Your task to perform on an android device: change text size in settings app Image 0: 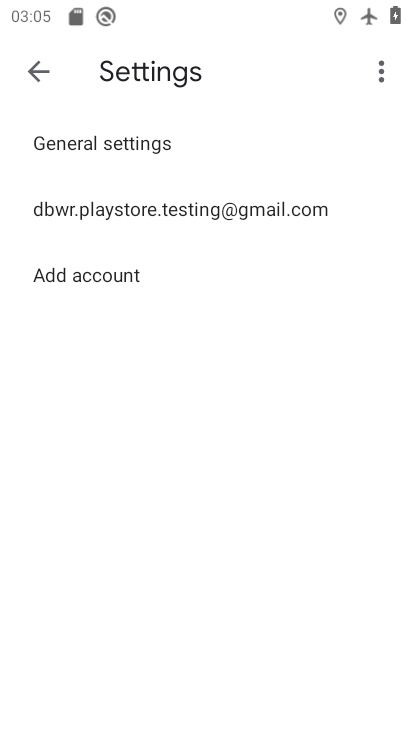
Step 0: press home button
Your task to perform on an android device: change text size in settings app Image 1: 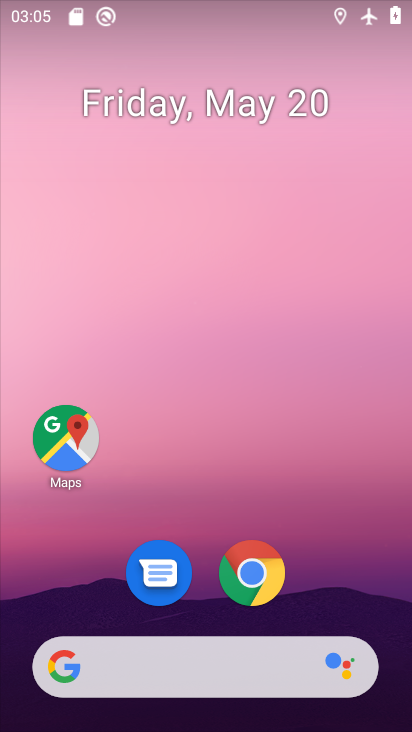
Step 1: drag from (206, 623) to (204, 216)
Your task to perform on an android device: change text size in settings app Image 2: 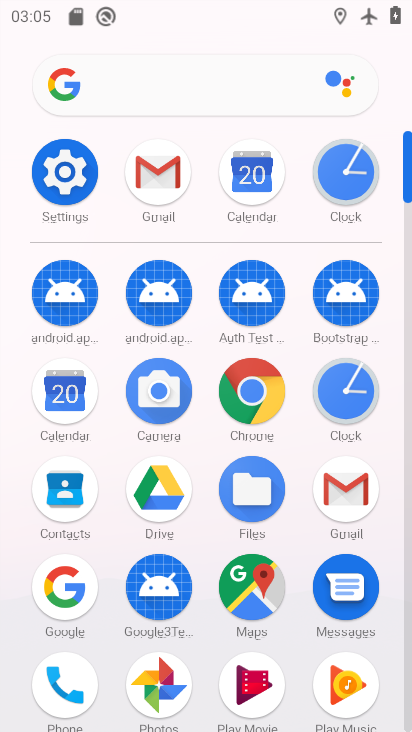
Step 2: click (90, 177)
Your task to perform on an android device: change text size in settings app Image 3: 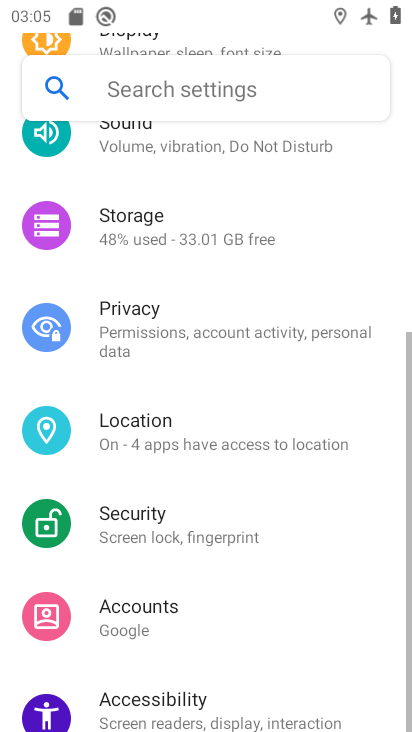
Step 3: drag from (149, 233) to (154, 510)
Your task to perform on an android device: change text size in settings app Image 4: 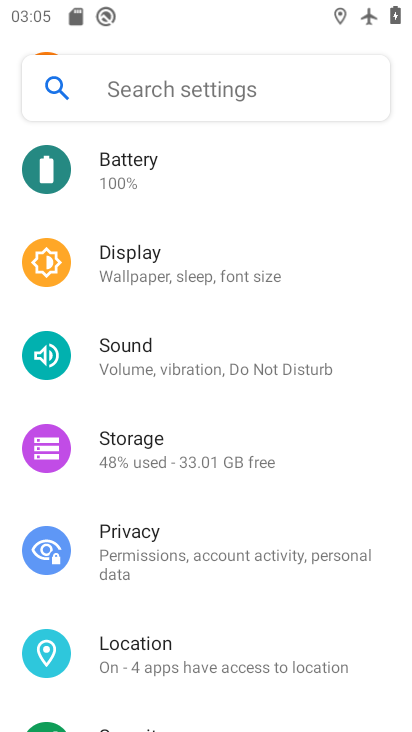
Step 4: click (170, 282)
Your task to perform on an android device: change text size in settings app Image 5: 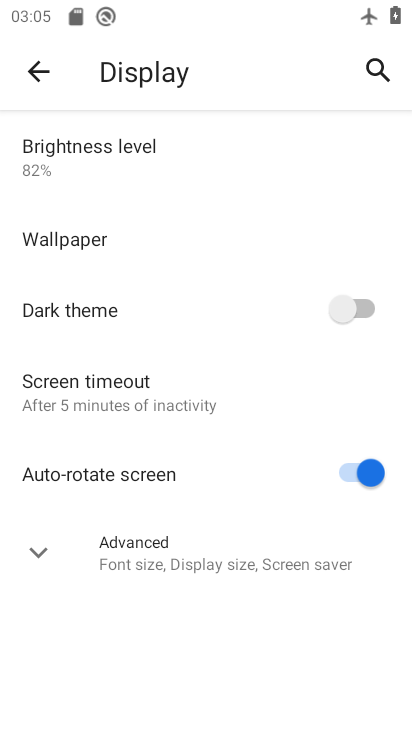
Step 5: click (148, 550)
Your task to perform on an android device: change text size in settings app Image 6: 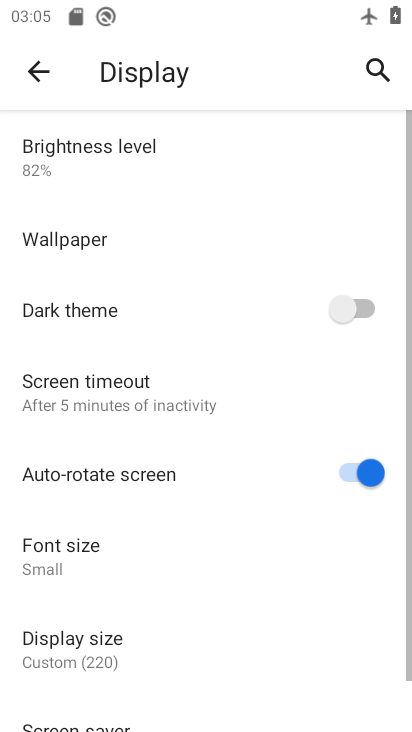
Step 6: click (136, 555)
Your task to perform on an android device: change text size in settings app Image 7: 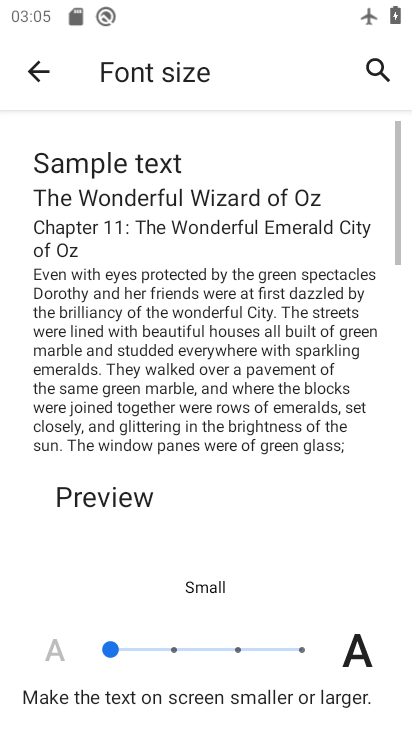
Step 7: click (161, 646)
Your task to perform on an android device: change text size in settings app Image 8: 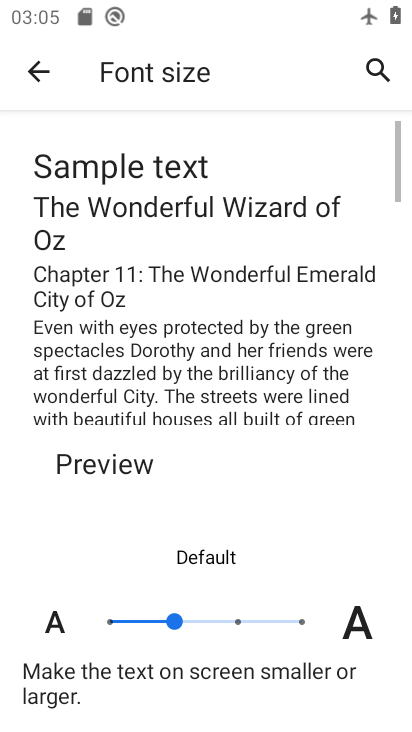
Step 8: task complete